Your task to perform on an android device: change text size in settings app Image 0: 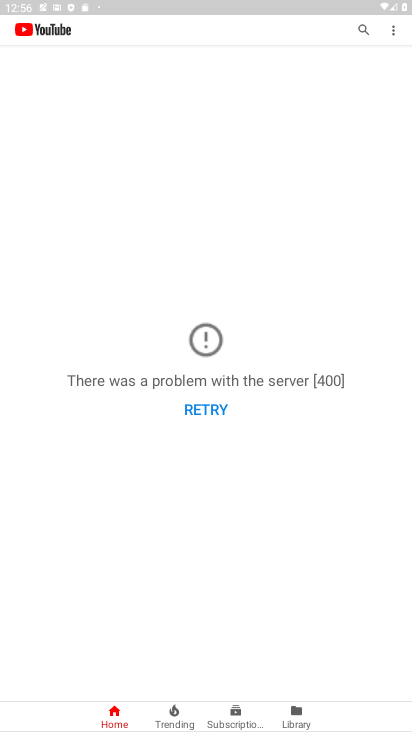
Step 0: press home button
Your task to perform on an android device: change text size in settings app Image 1: 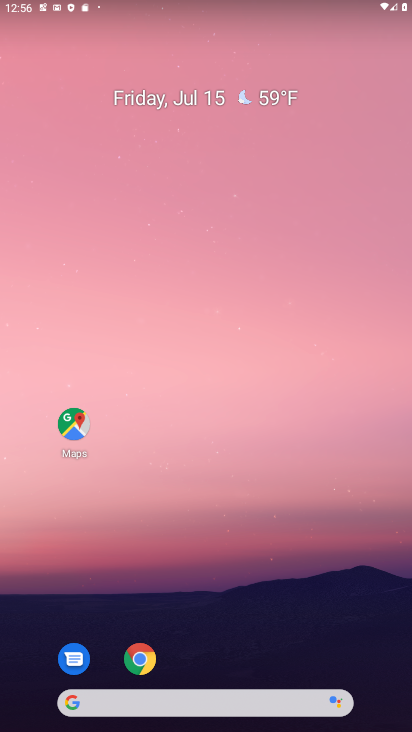
Step 1: drag from (199, 666) to (181, 304)
Your task to perform on an android device: change text size in settings app Image 2: 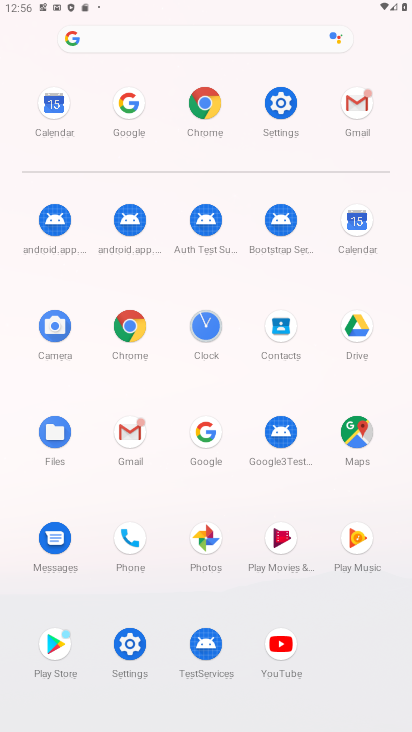
Step 2: click (129, 640)
Your task to perform on an android device: change text size in settings app Image 3: 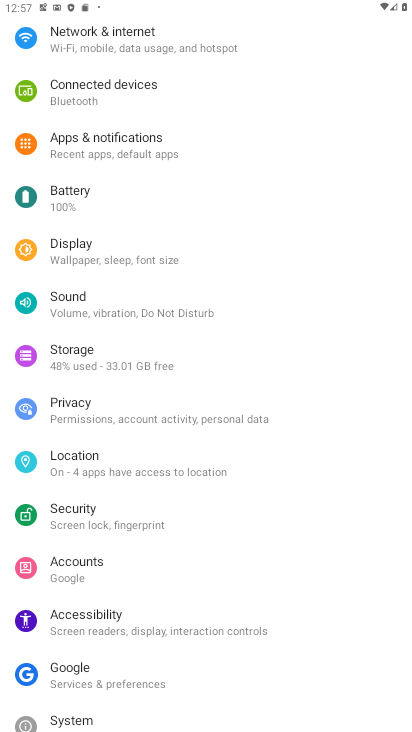
Step 3: click (128, 259)
Your task to perform on an android device: change text size in settings app Image 4: 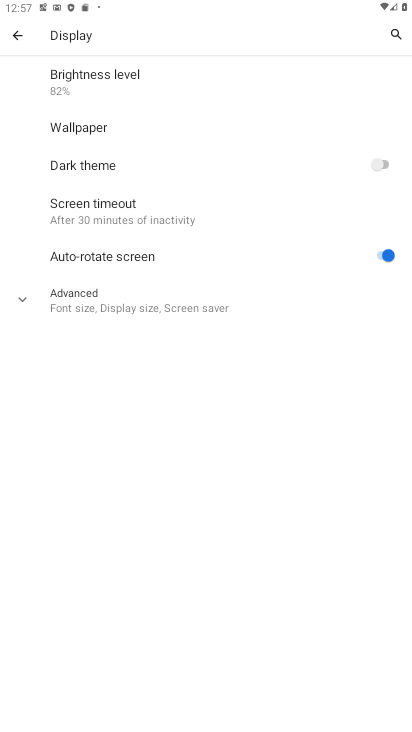
Step 4: click (106, 302)
Your task to perform on an android device: change text size in settings app Image 5: 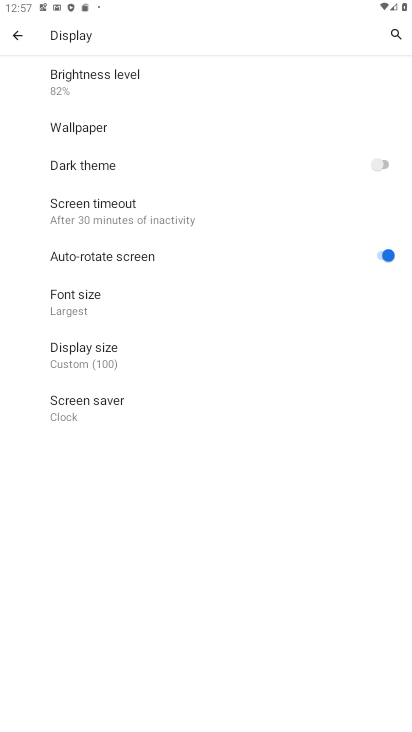
Step 5: click (77, 305)
Your task to perform on an android device: change text size in settings app Image 6: 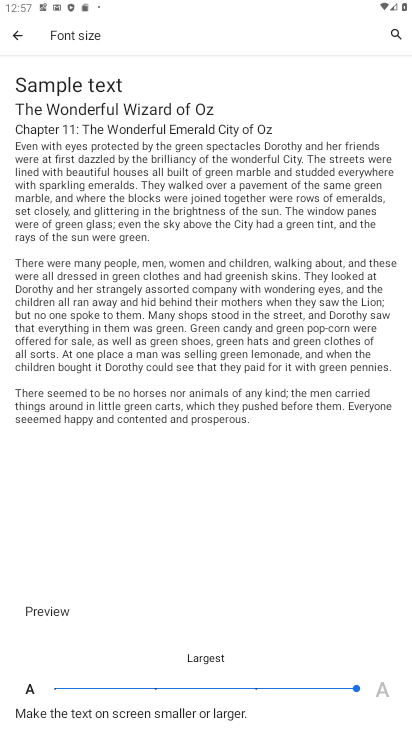
Step 6: click (253, 686)
Your task to perform on an android device: change text size in settings app Image 7: 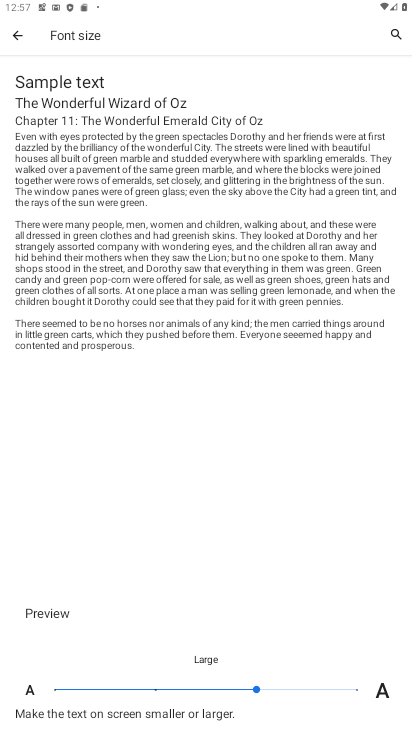
Step 7: task complete